Your task to perform on an android device: Open the calendar and show me this week's events? Image 0: 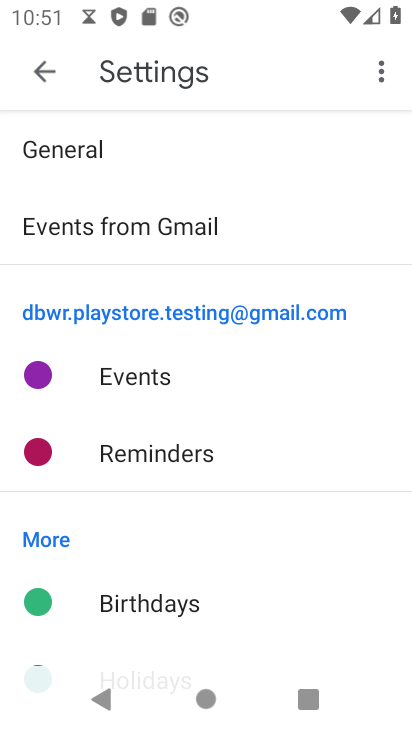
Step 0: press home button
Your task to perform on an android device: Open the calendar and show me this week's events? Image 1: 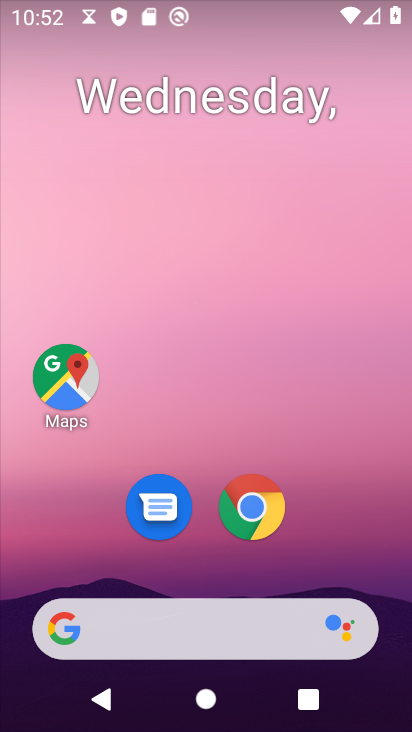
Step 1: drag from (308, 208) to (349, 62)
Your task to perform on an android device: Open the calendar and show me this week's events? Image 2: 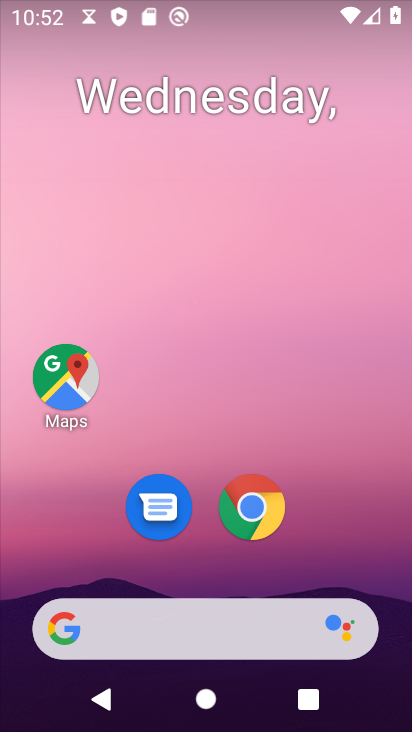
Step 2: drag from (154, 630) to (239, 188)
Your task to perform on an android device: Open the calendar and show me this week's events? Image 3: 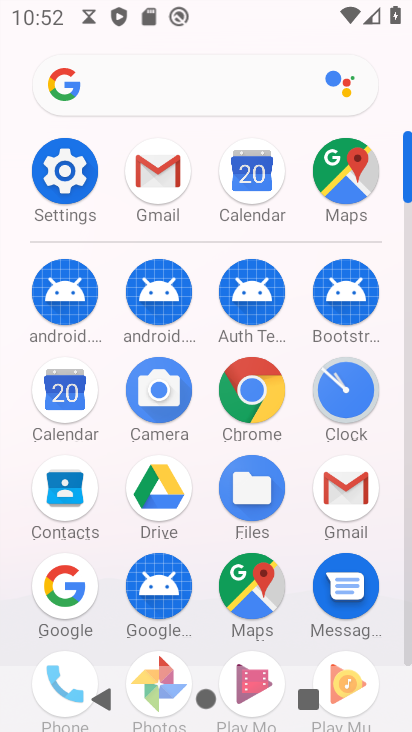
Step 3: click (76, 381)
Your task to perform on an android device: Open the calendar and show me this week's events? Image 4: 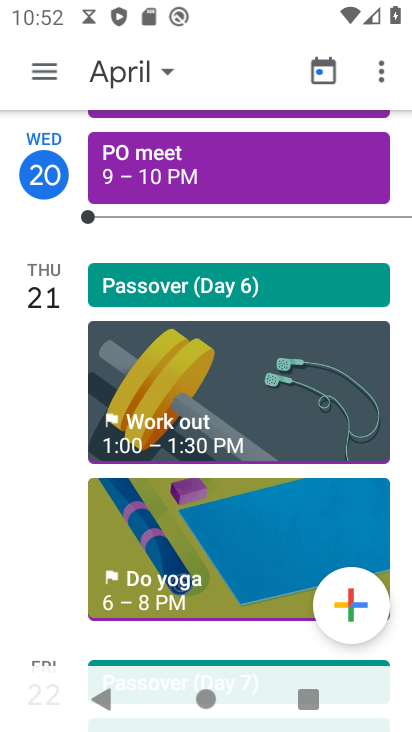
Step 4: click (51, 88)
Your task to perform on an android device: Open the calendar and show me this week's events? Image 5: 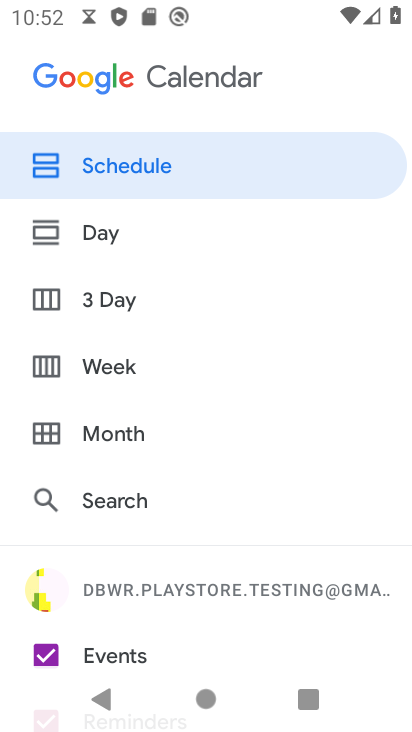
Step 5: click (124, 360)
Your task to perform on an android device: Open the calendar and show me this week's events? Image 6: 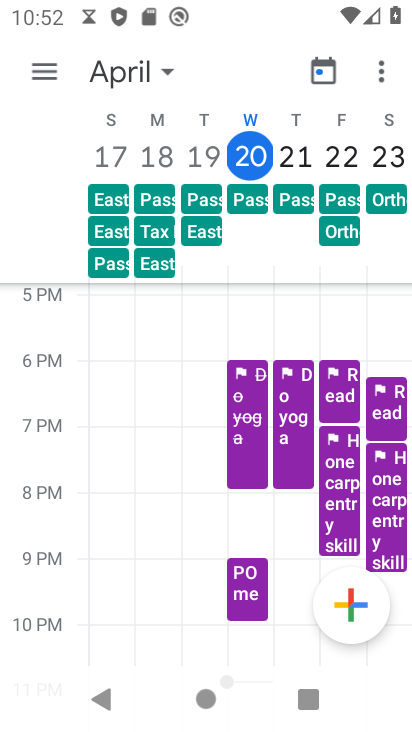
Step 6: task complete